Your task to perform on an android device: What's the weather going to be tomorrow? Image 0: 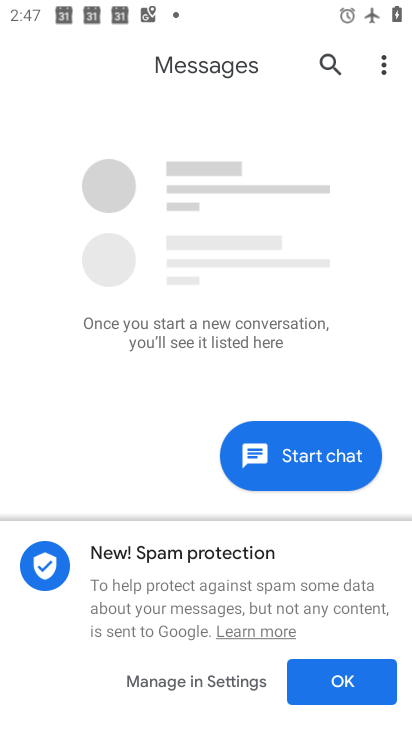
Step 0: press home button
Your task to perform on an android device: What's the weather going to be tomorrow? Image 1: 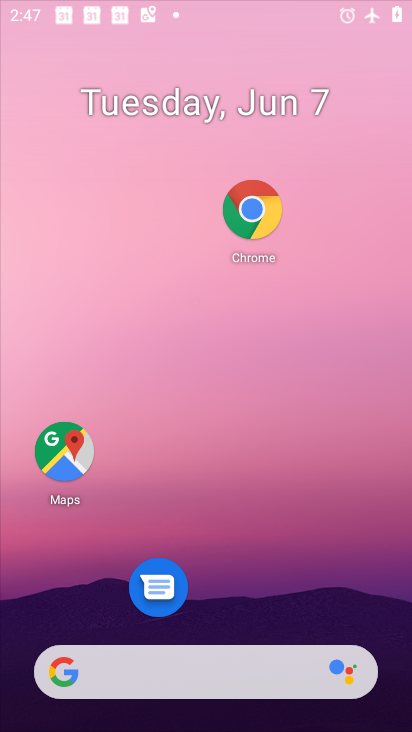
Step 1: drag from (195, 618) to (285, 137)
Your task to perform on an android device: What's the weather going to be tomorrow? Image 2: 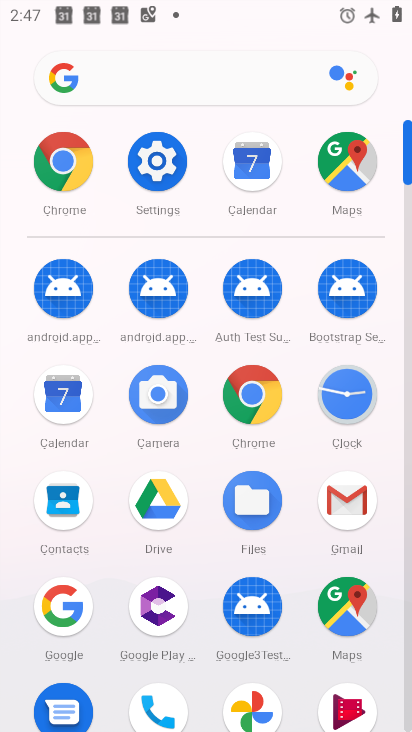
Step 2: click (72, 604)
Your task to perform on an android device: What's the weather going to be tomorrow? Image 3: 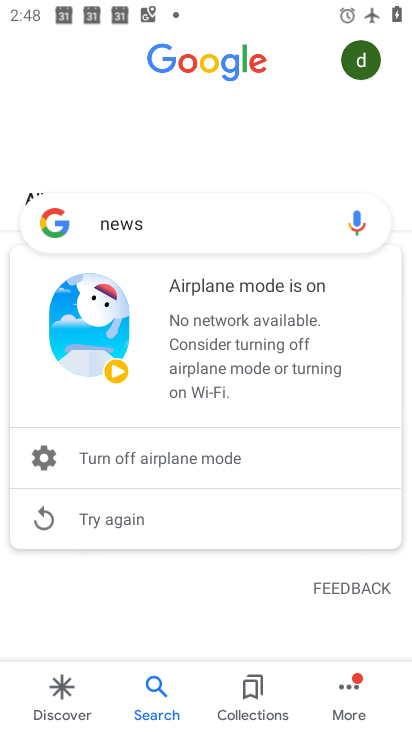
Step 3: click (239, 219)
Your task to perform on an android device: What's the weather going to be tomorrow? Image 4: 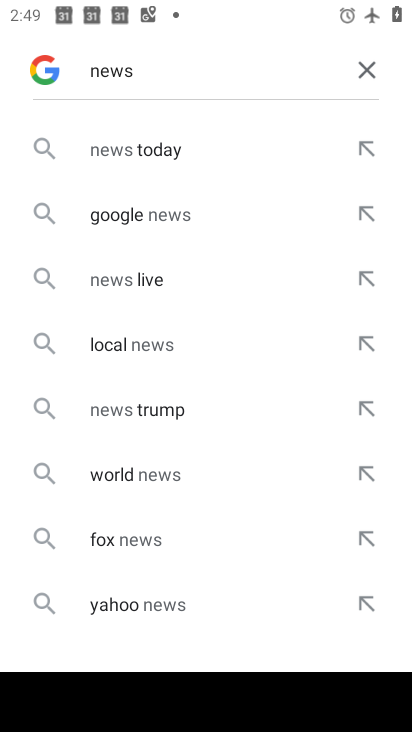
Step 4: click (361, 68)
Your task to perform on an android device: What's the weather going to be tomorrow? Image 5: 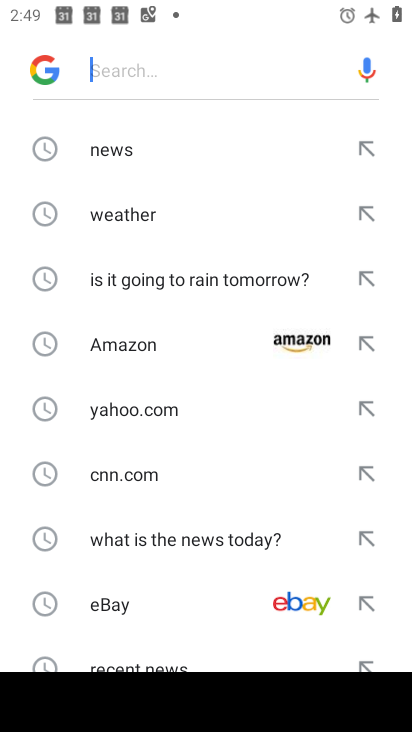
Step 5: click (242, 208)
Your task to perform on an android device: What's the weather going to be tomorrow? Image 6: 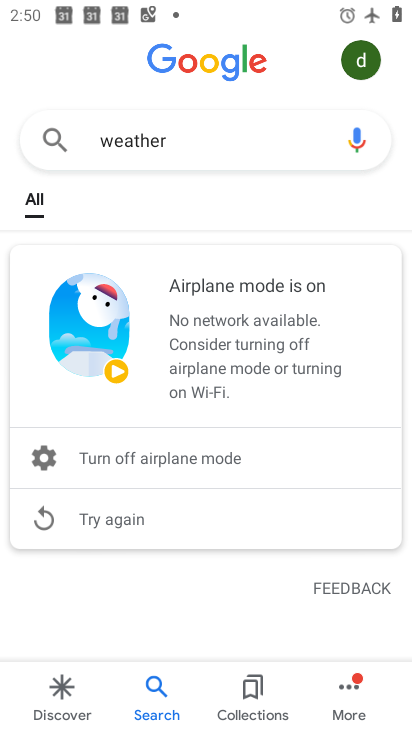
Step 6: task complete